Your task to perform on an android device: turn on sleep mode Image 0: 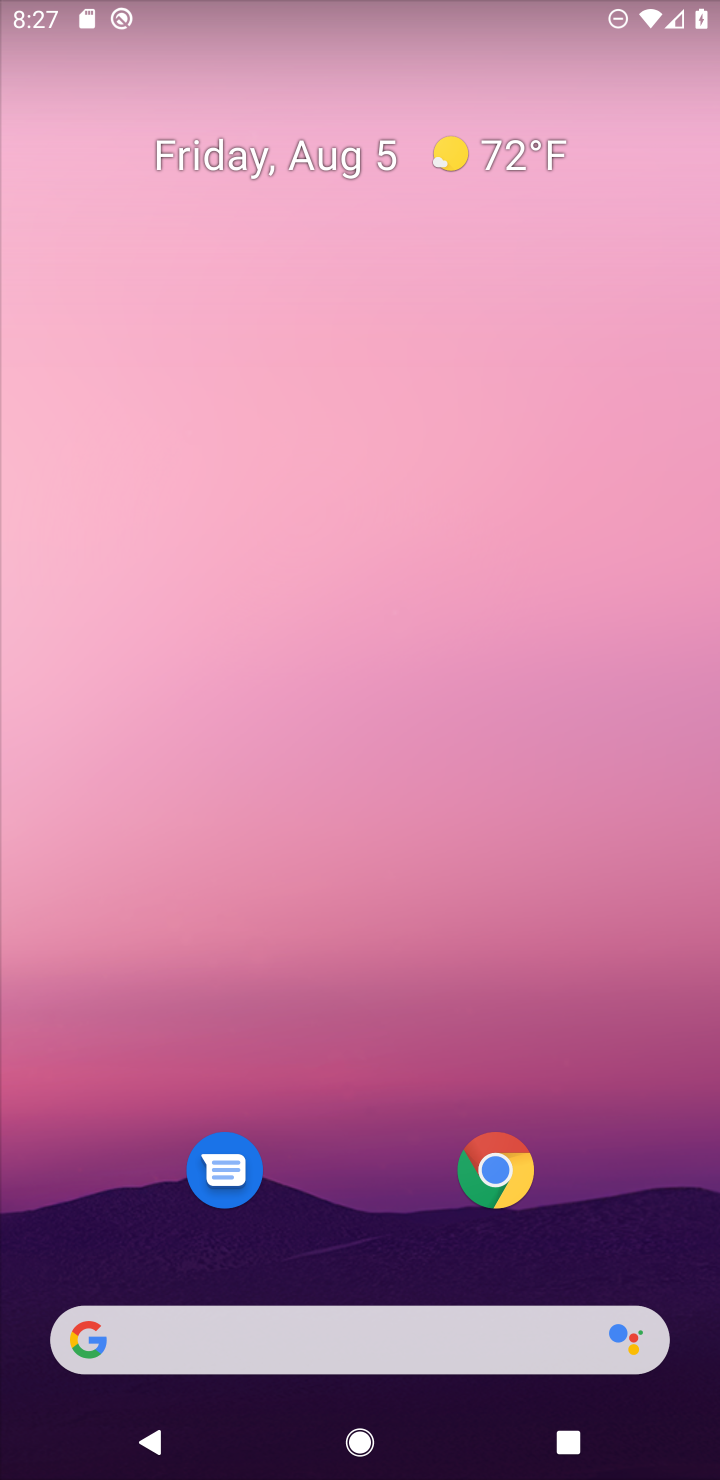
Step 0: drag from (663, 1257) to (570, 274)
Your task to perform on an android device: turn on sleep mode Image 1: 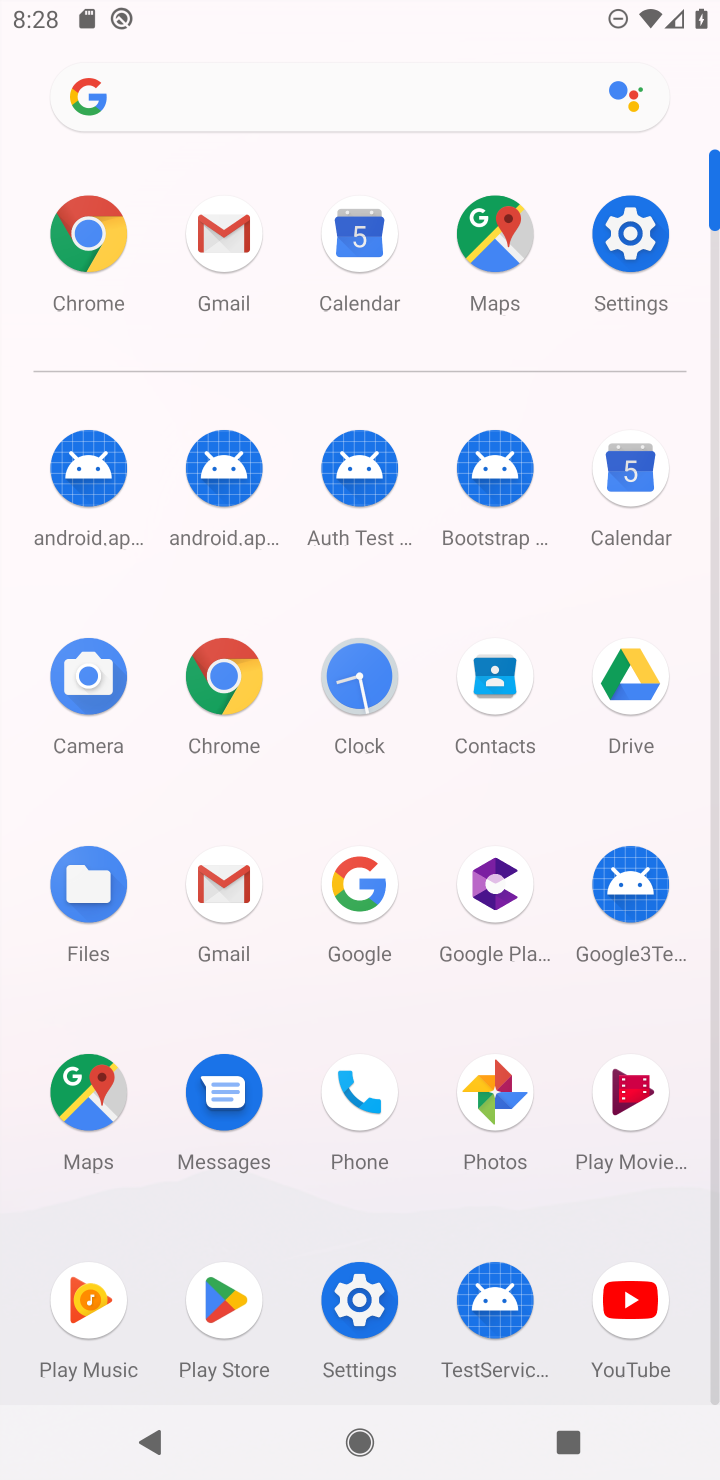
Step 1: click (363, 1300)
Your task to perform on an android device: turn on sleep mode Image 2: 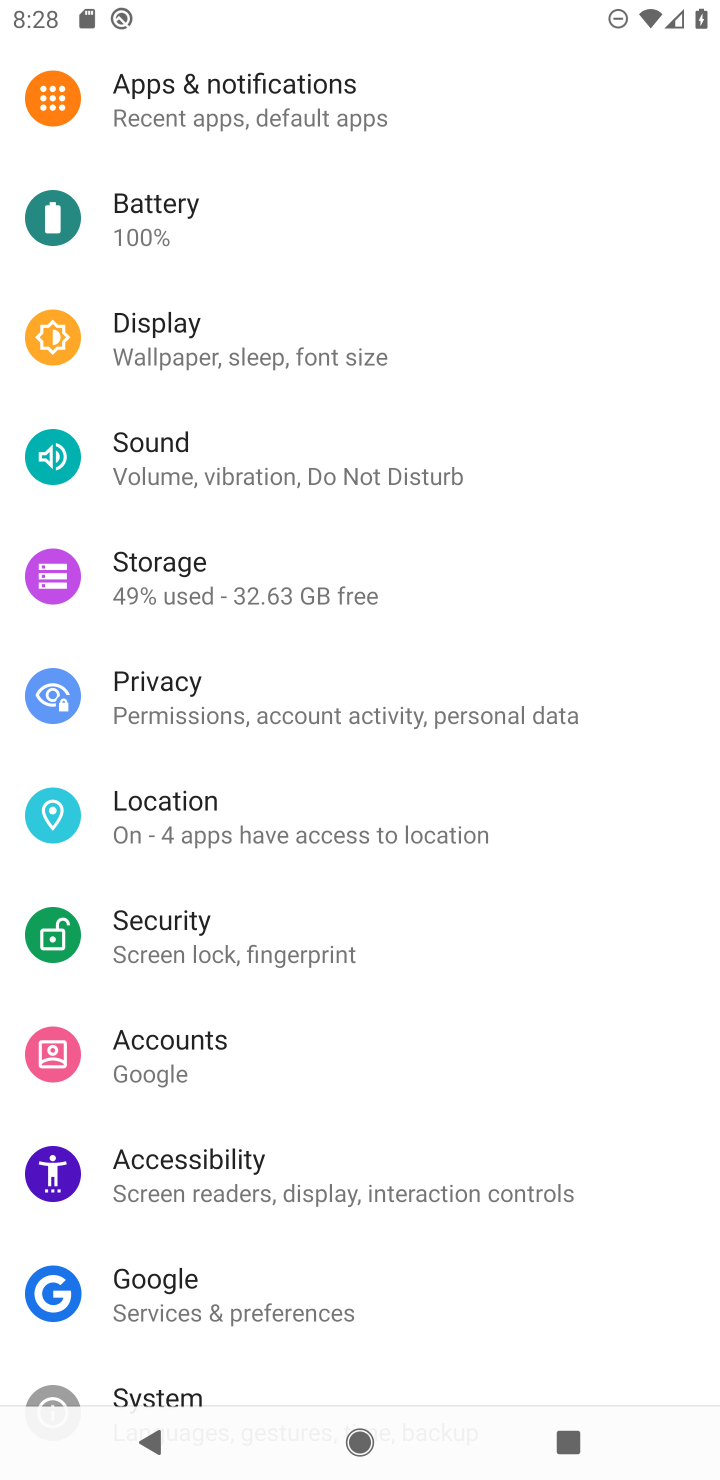
Step 2: click (138, 313)
Your task to perform on an android device: turn on sleep mode Image 3: 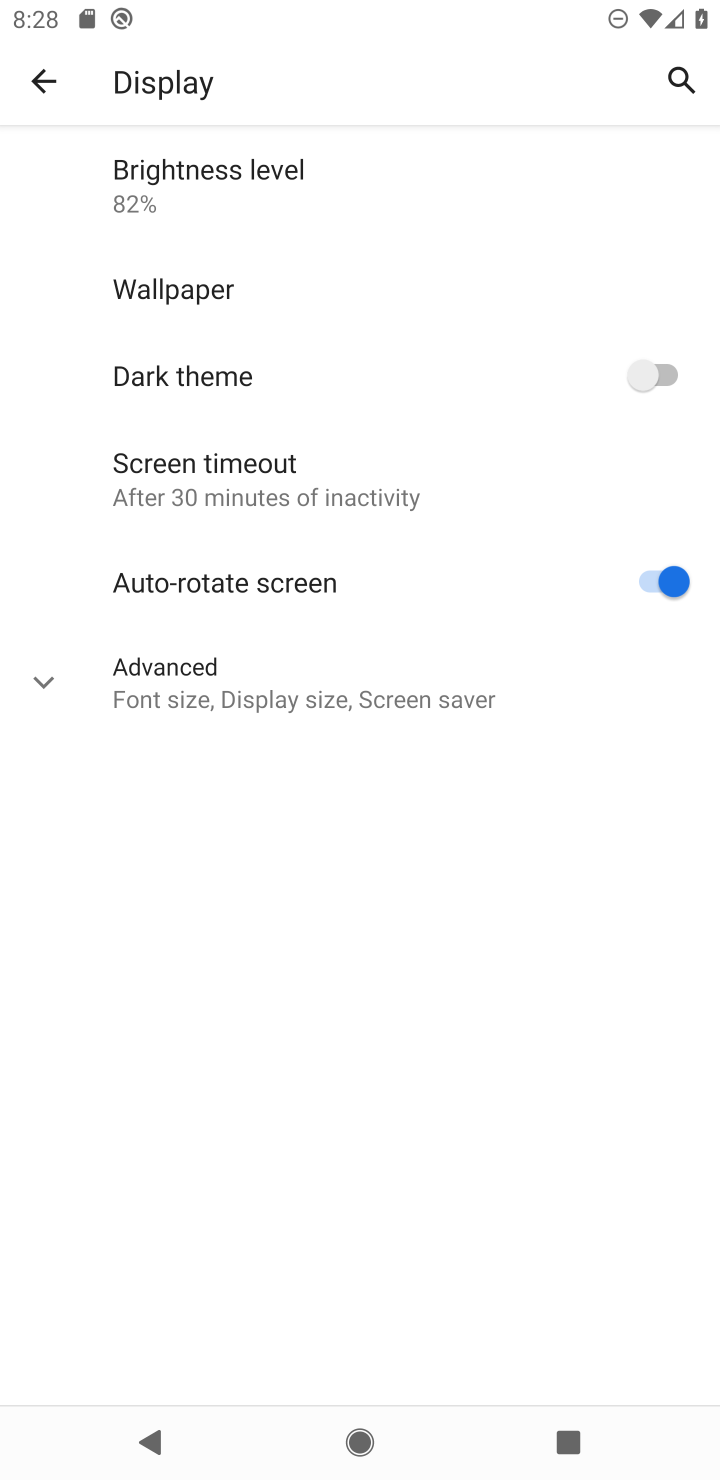
Step 3: click (45, 692)
Your task to perform on an android device: turn on sleep mode Image 4: 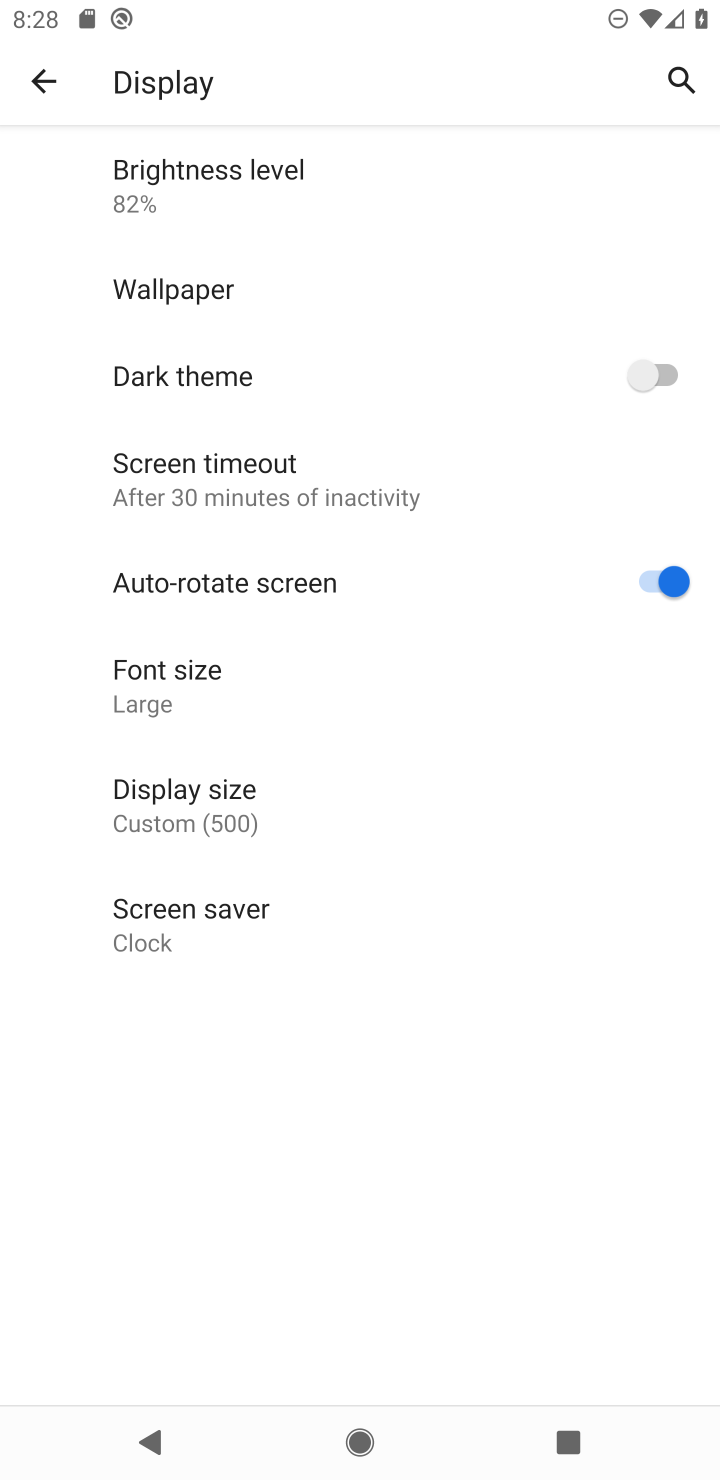
Step 4: task complete